Your task to perform on an android device: check data usage Image 0: 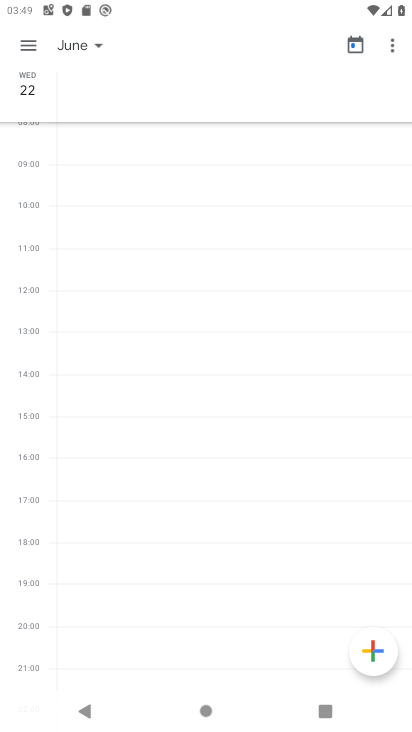
Step 0: press home button
Your task to perform on an android device: check data usage Image 1: 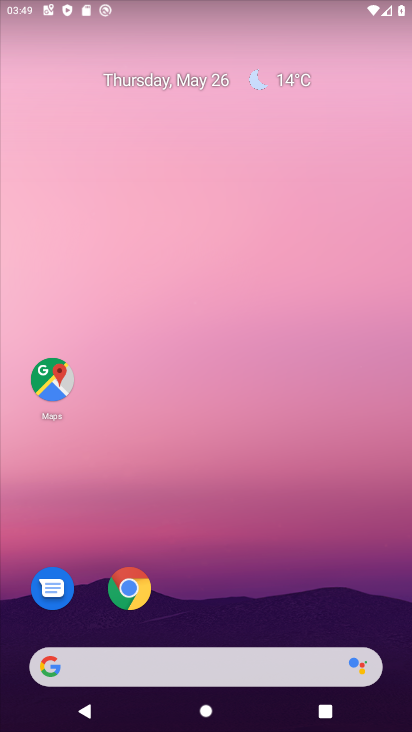
Step 1: drag from (307, 584) to (314, 164)
Your task to perform on an android device: check data usage Image 2: 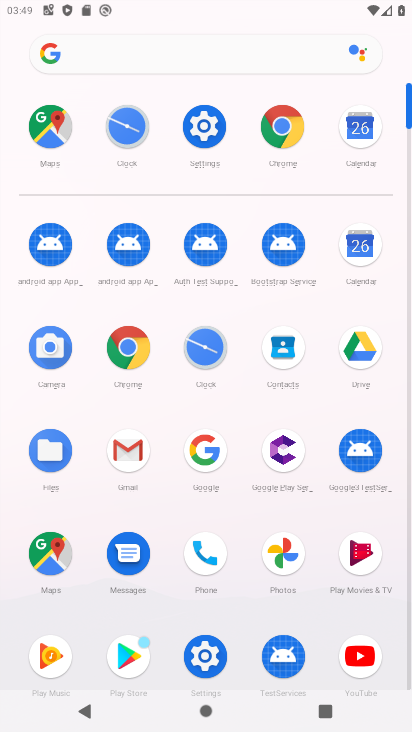
Step 2: click (193, 142)
Your task to perform on an android device: check data usage Image 3: 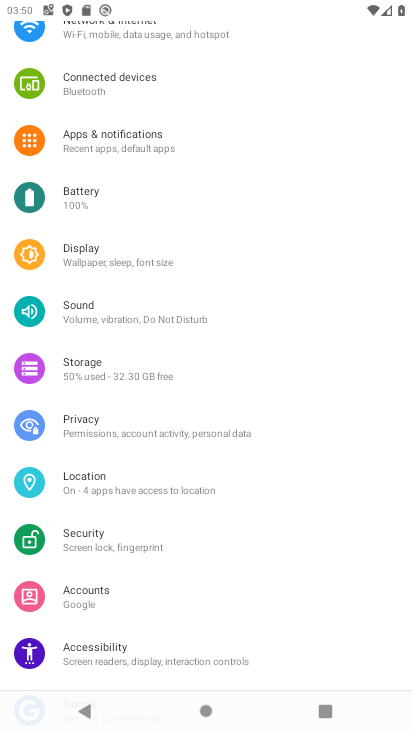
Step 3: click (247, 47)
Your task to perform on an android device: check data usage Image 4: 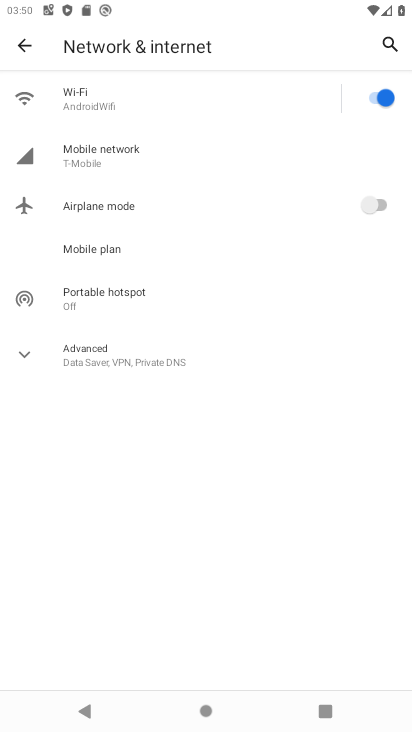
Step 4: click (125, 164)
Your task to perform on an android device: check data usage Image 5: 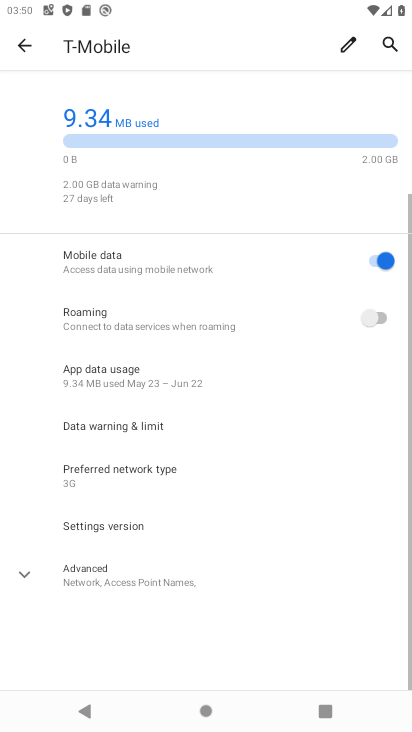
Step 5: task complete